Your task to perform on an android device: Set the phone to "Do not disturb". Image 0: 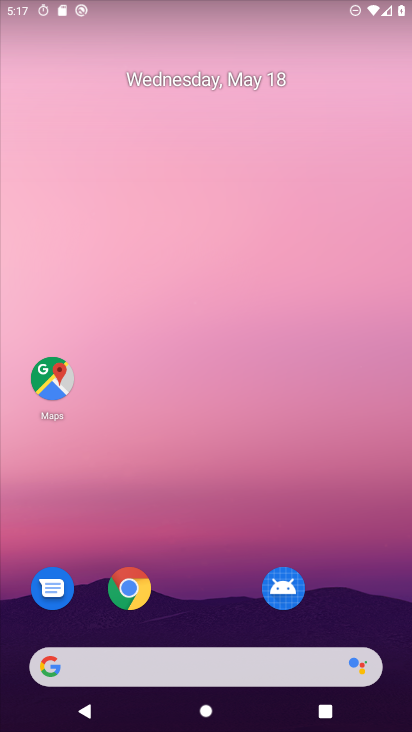
Step 0: drag from (173, 4) to (183, 396)
Your task to perform on an android device: Set the phone to "Do not disturb". Image 1: 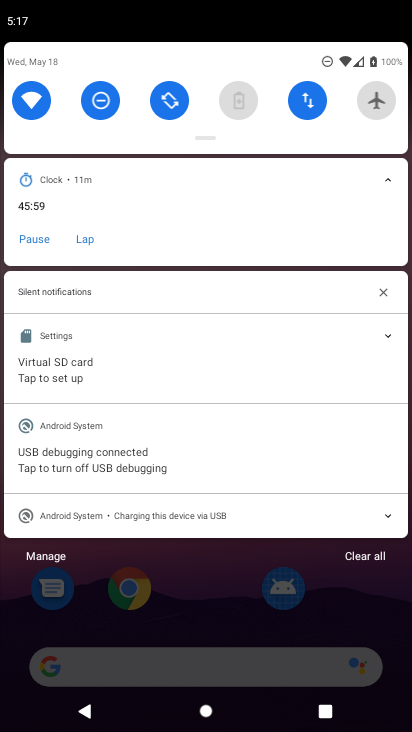
Step 1: task complete